Your task to perform on an android device: turn off airplane mode Image 0: 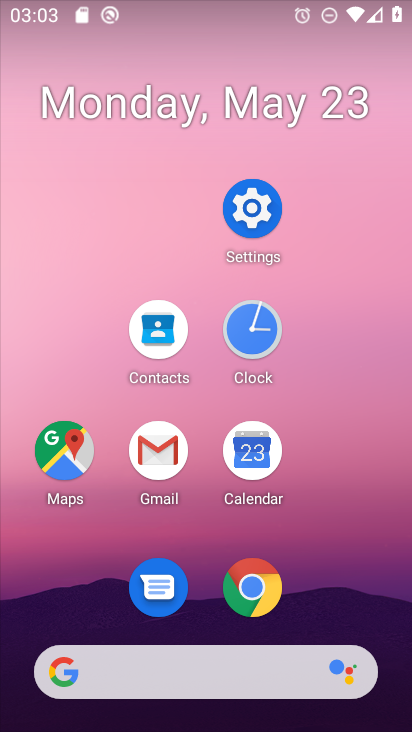
Step 0: click (257, 209)
Your task to perform on an android device: turn off airplane mode Image 1: 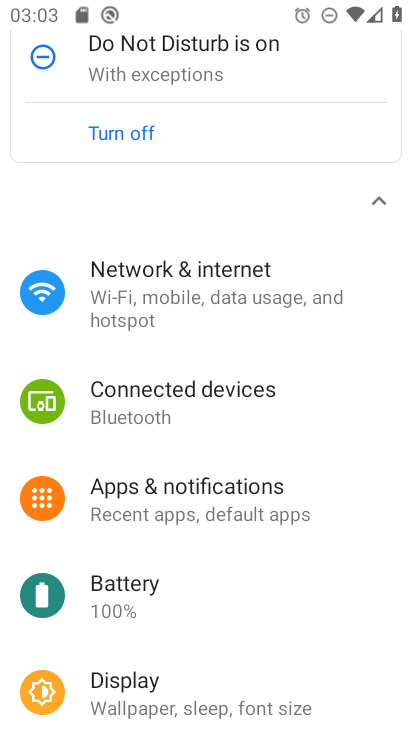
Step 1: click (191, 269)
Your task to perform on an android device: turn off airplane mode Image 2: 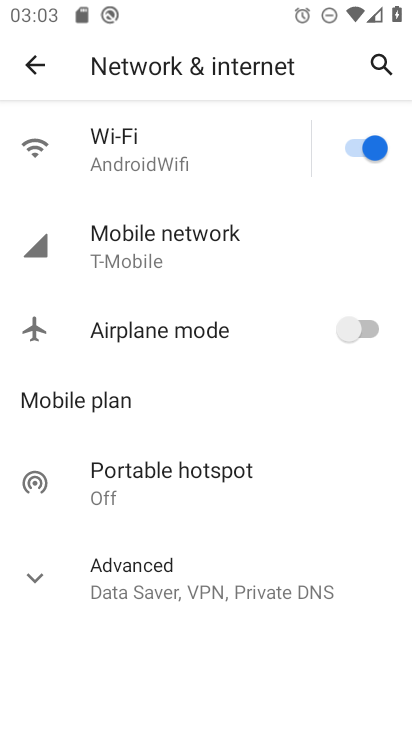
Step 2: click (189, 321)
Your task to perform on an android device: turn off airplane mode Image 3: 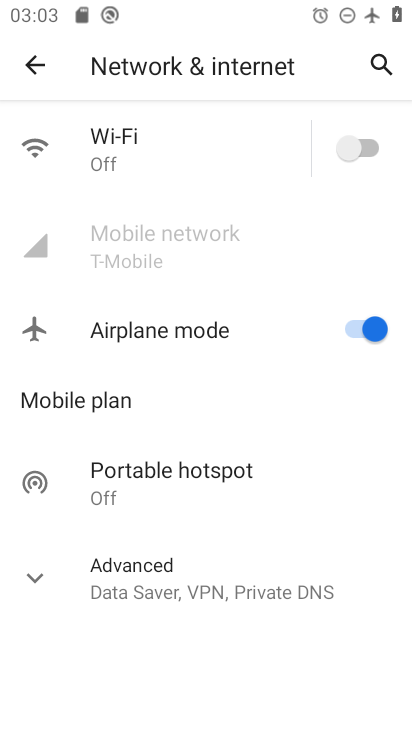
Step 3: click (370, 314)
Your task to perform on an android device: turn off airplane mode Image 4: 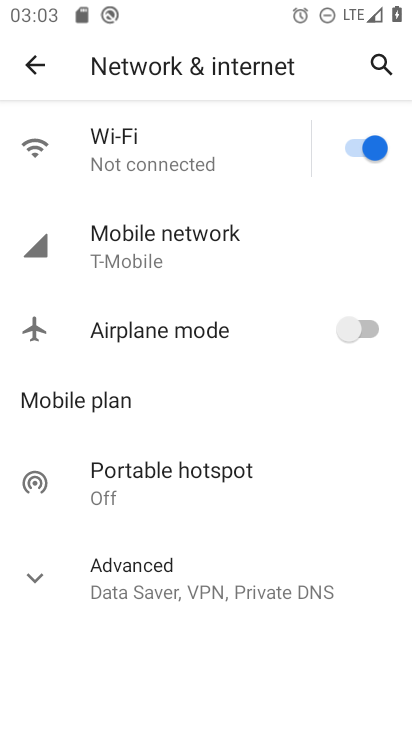
Step 4: task complete